Your task to perform on an android device: Search for pizza restaurants on Maps Image 0: 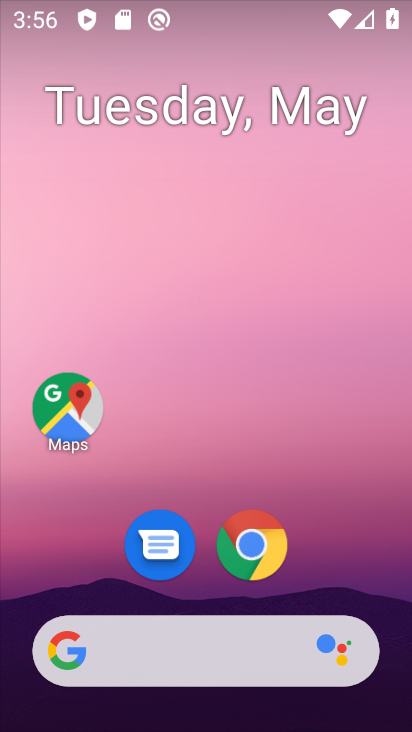
Step 0: click (64, 410)
Your task to perform on an android device: Search for pizza restaurants on Maps Image 1: 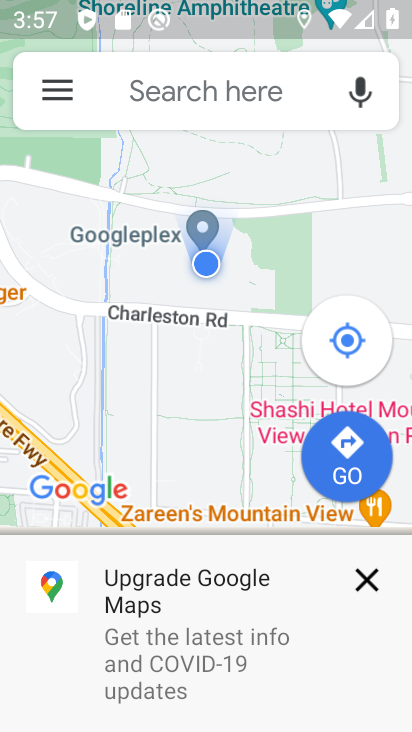
Step 1: click (276, 97)
Your task to perform on an android device: Search for pizza restaurants on Maps Image 2: 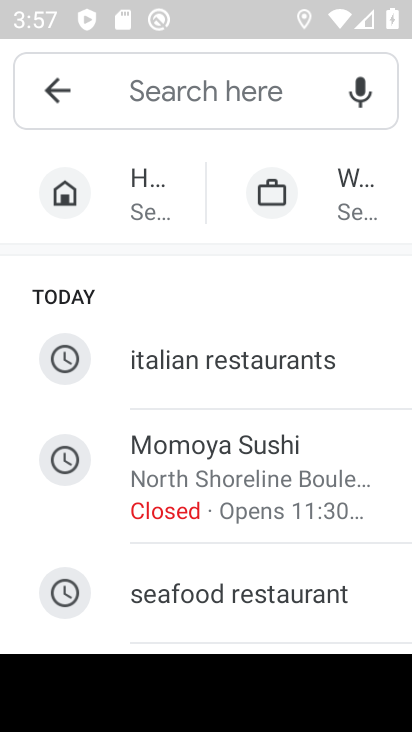
Step 2: type "pizza restaurants"
Your task to perform on an android device: Search for pizza restaurants on Maps Image 3: 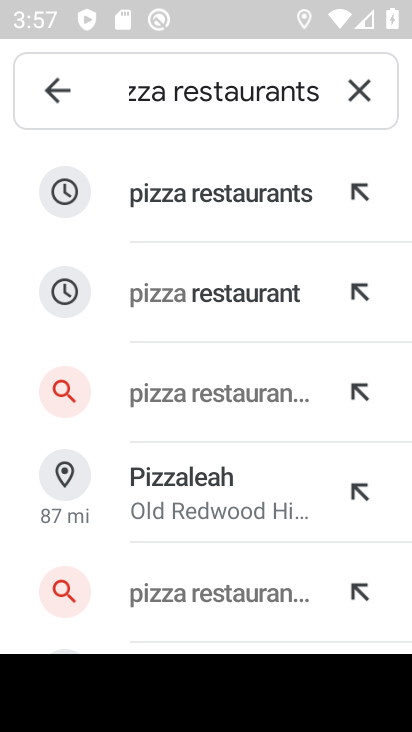
Step 3: click (271, 202)
Your task to perform on an android device: Search for pizza restaurants on Maps Image 4: 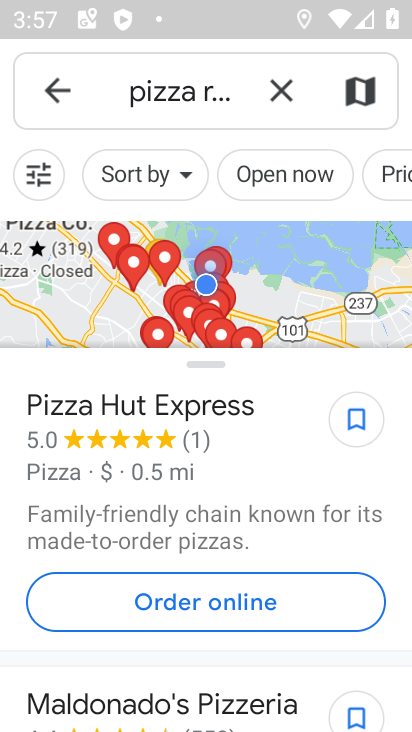
Step 4: task complete